Your task to perform on an android device: set default search engine in the chrome app Image 0: 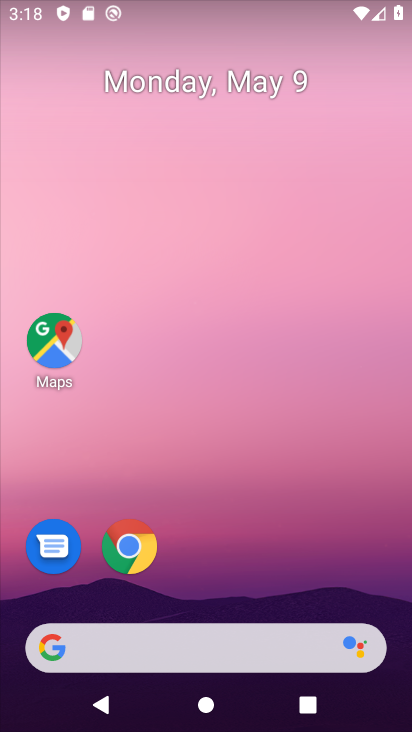
Step 0: drag from (315, 519) to (290, 244)
Your task to perform on an android device: set default search engine in the chrome app Image 1: 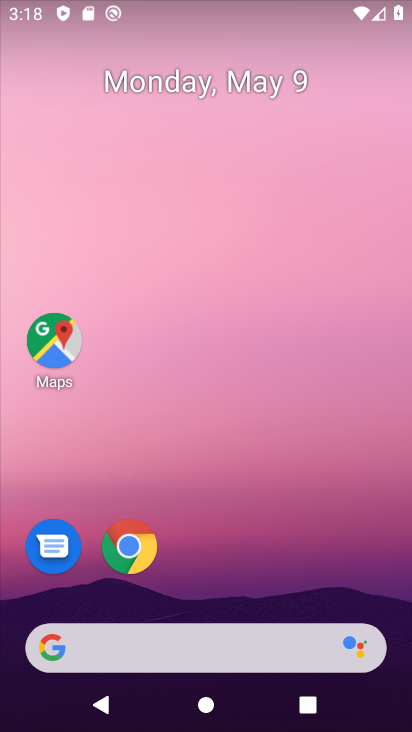
Step 1: drag from (213, 543) to (200, 191)
Your task to perform on an android device: set default search engine in the chrome app Image 2: 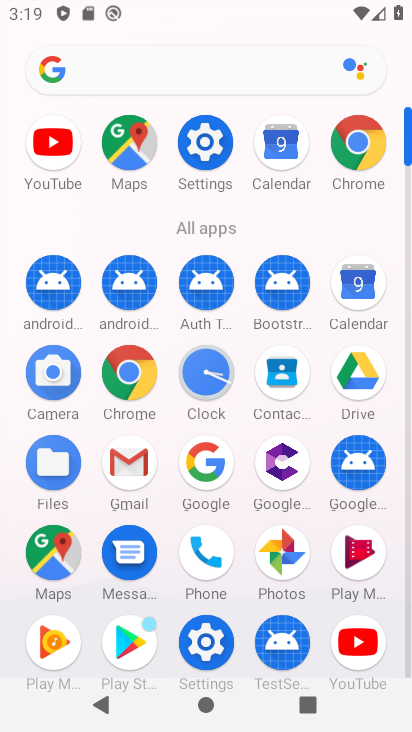
Step 2: click (381, 140)
Your task to perform on an android device: set default search engine in the chrome app Image 3: 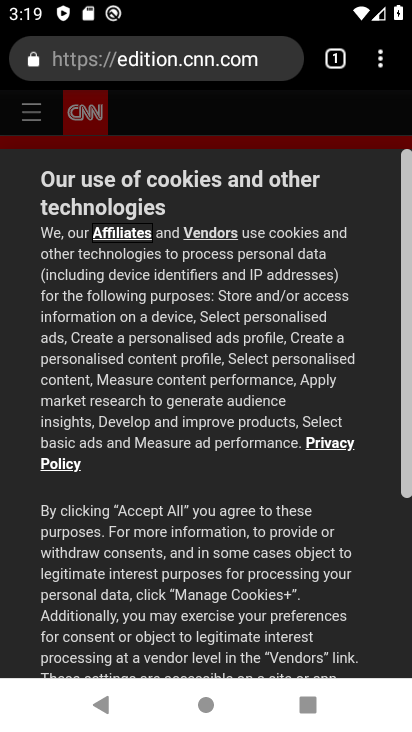
Step 3: drag from (379, 67) to (189, 567)
Your task to perform on an android device: set default search engine in the chrome app Image 4: 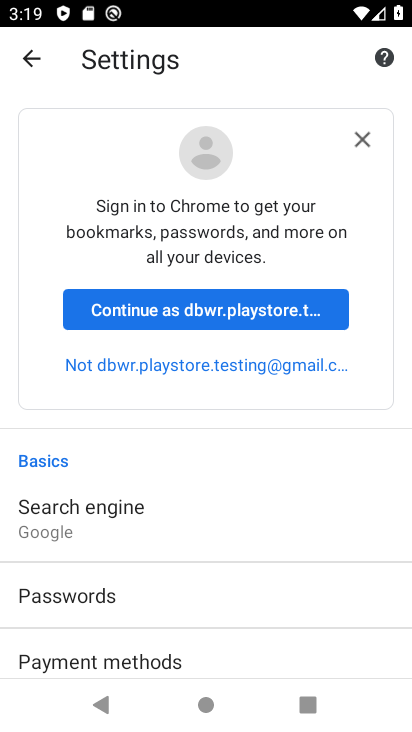
Step 4: click (89, 533)
Your task to perform on an android device: set default search engine in the chrome app Image 5: 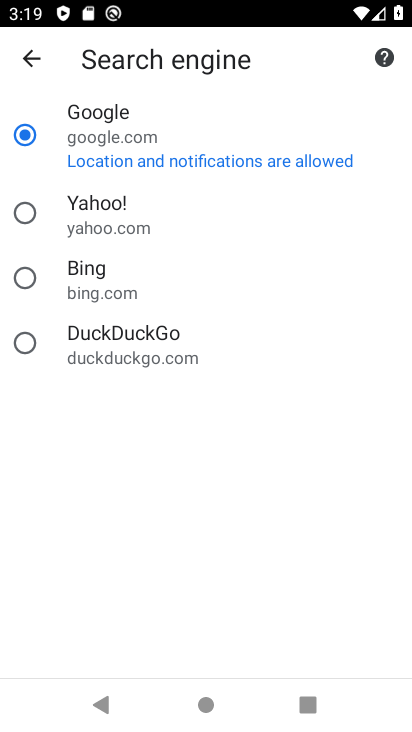
Step 5: task complete